Your task to perform on an android device: check battery use Image 0: 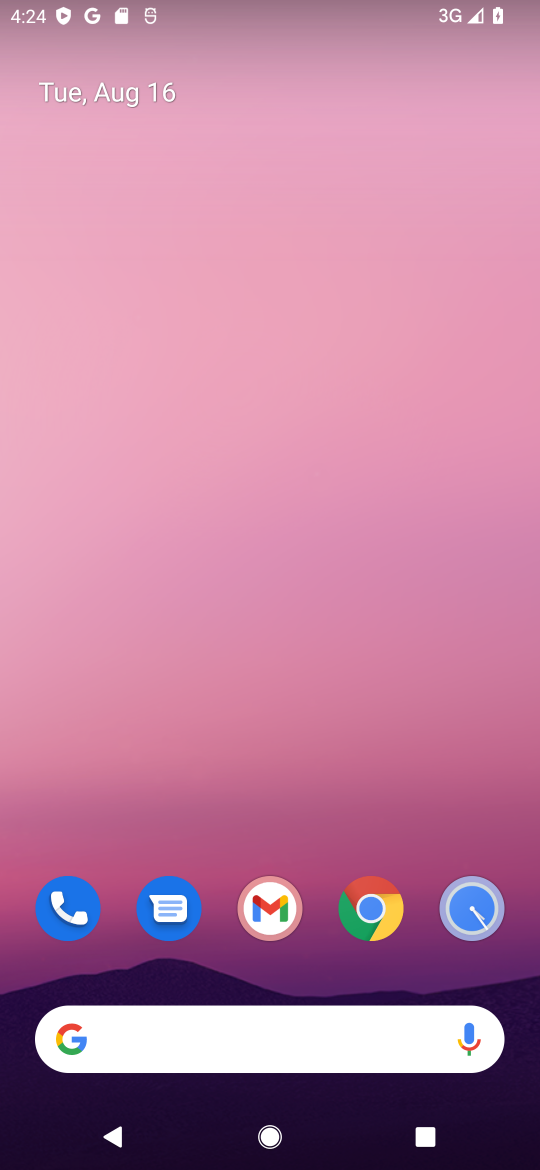
Step 0: drag from (330, 888) to (313, 146)
Your task to perform on an android device: check battery use Image 1: 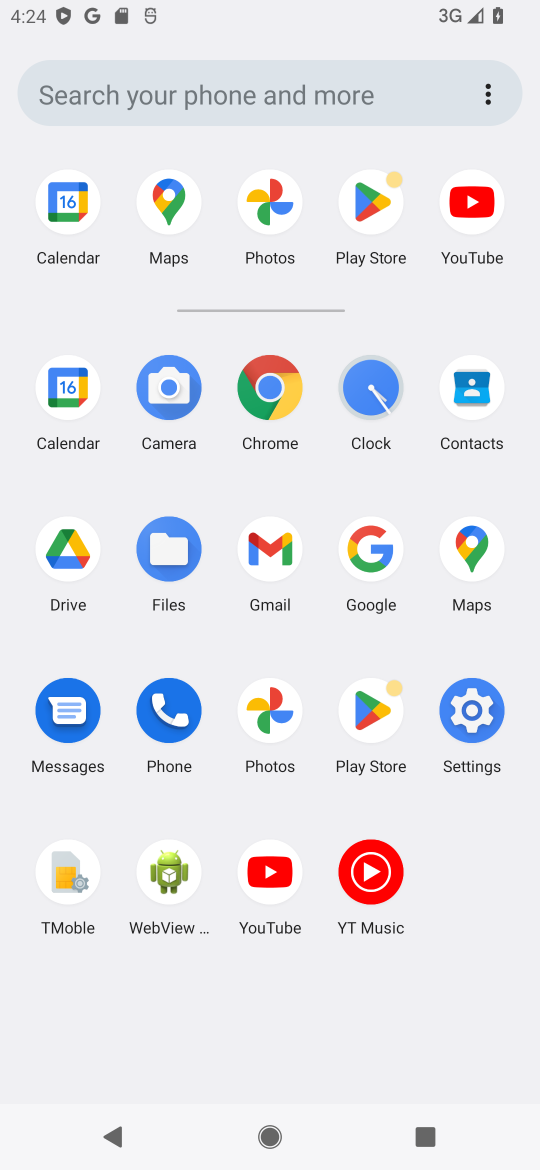
Step 1: click (479, 716)
Your task to perform on an android device: check battery use Image 2: 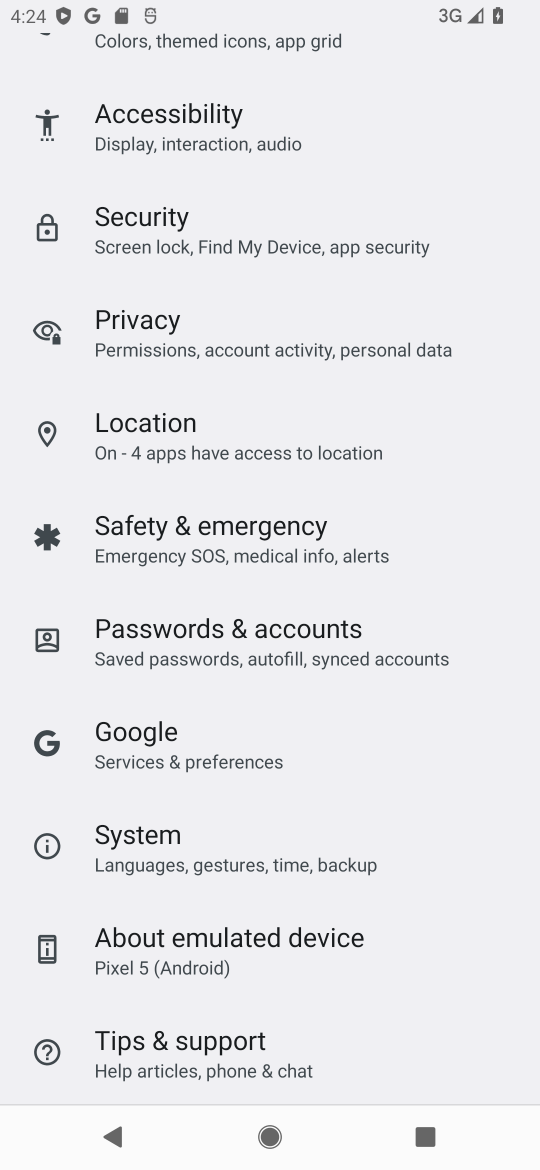
Step 2: drag from (380, 130) to (343, 1119)
Your task to perform on an android device: check battery use Image 3: 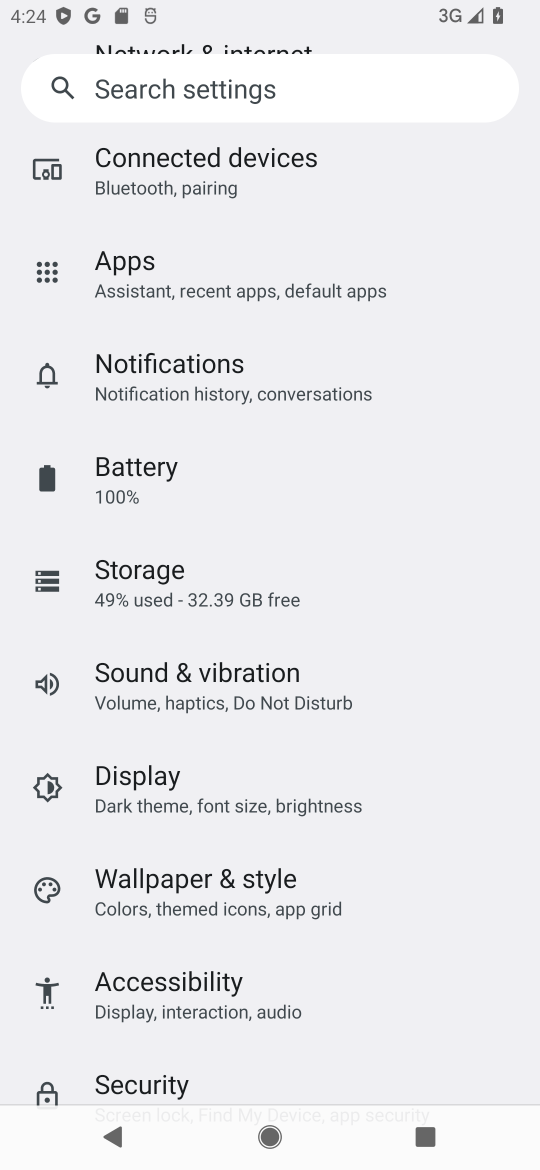
Step 3: drag from (315, 298) to (289, 1101)
Your task to perform on an android device: check battery use Image 4: 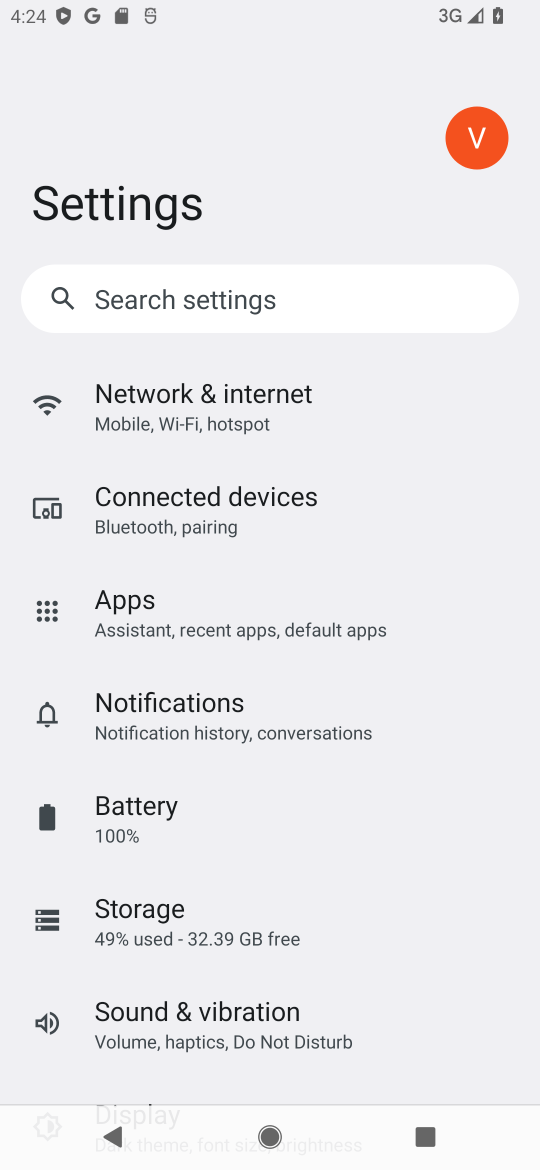
Step 4: click (152, 823)
Your task to perform on an android device: check battery use Image 5: 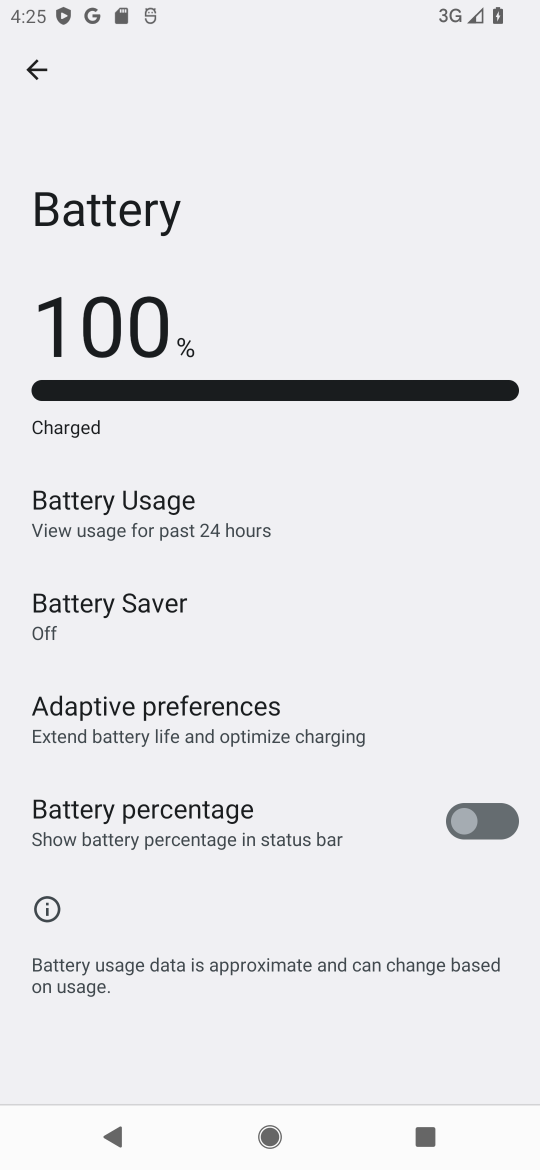
Step 5: click (246, 513)
Your task to perform on an android device: check battery use Image 6: 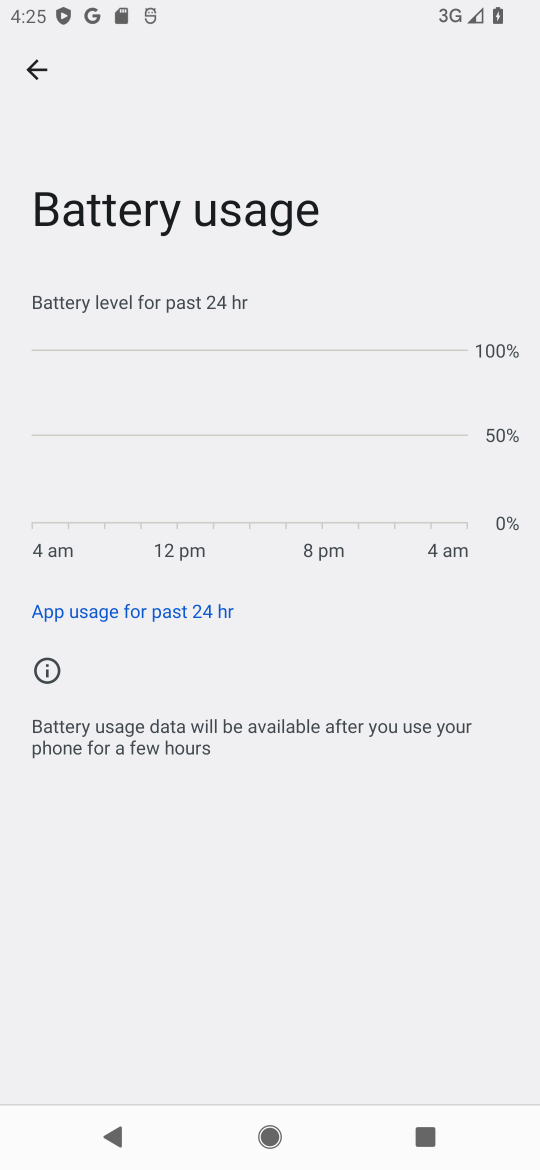
Step 6: task complete